Your task to perform on an android device: Open Amazon Image 0: 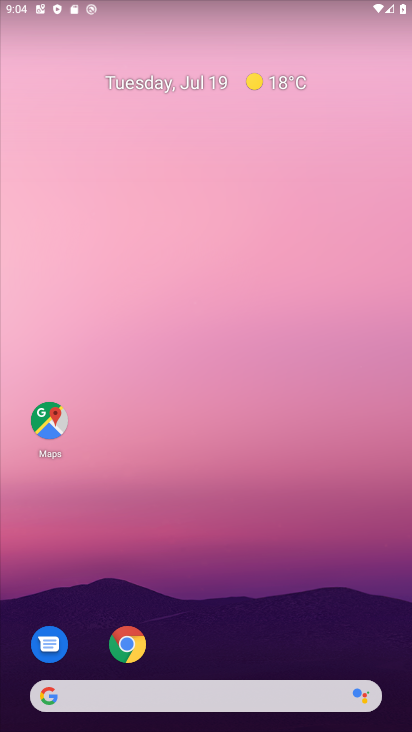
Step 0: drag from (217, 714) to (232, 178)
Your task to perform on an android device: Open Amazon Image 1: 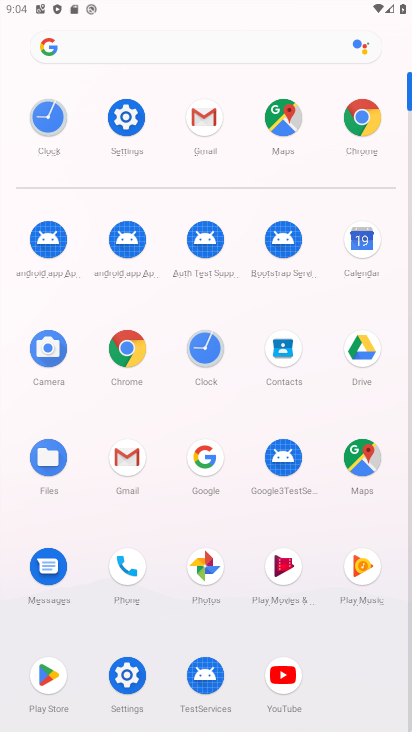
Step 1: click (363, 121)
Your task to perform on an android device: Open Amazon Image 2: 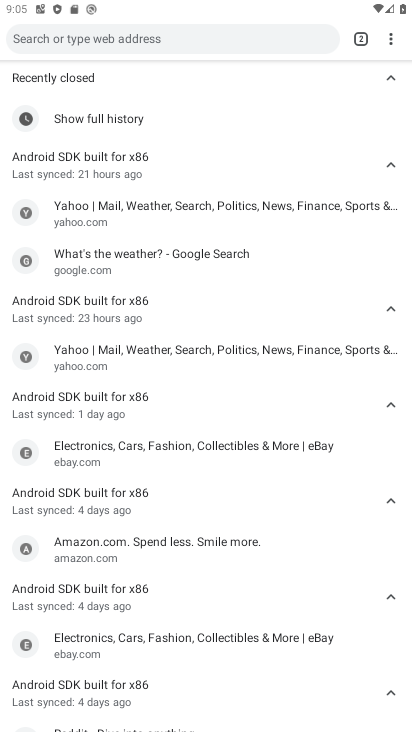
Step 2: click (391, 41)
Your task to perform on an android device: Open Amazon Image 3: 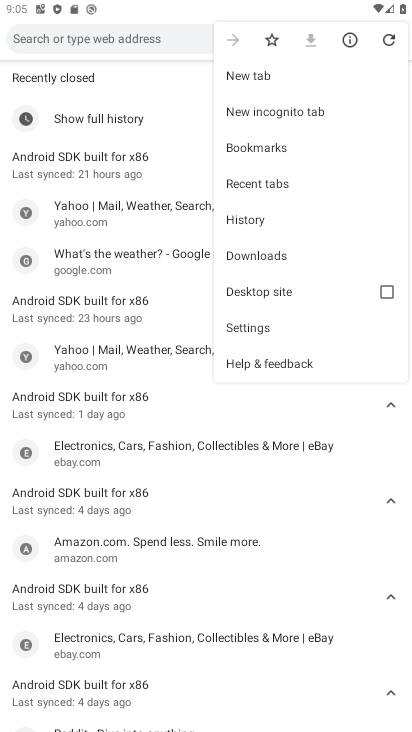
Step 3: click (247, 78)
Your task to perform on an android device: Open Amazon Image 4: 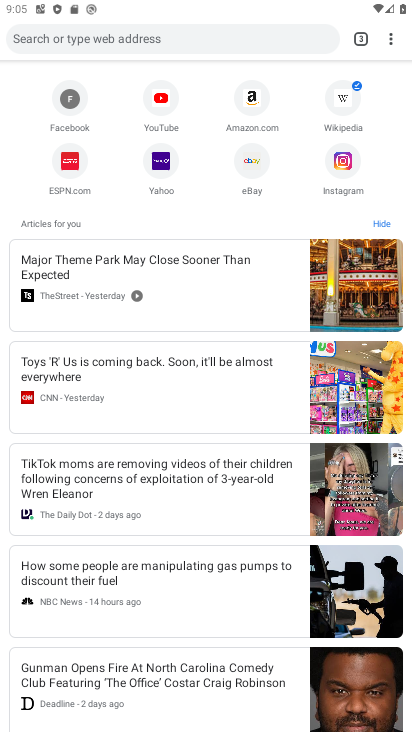
Step 4: click (243, 96)
Your task to perform on an android device: Open Amazon Image 5: 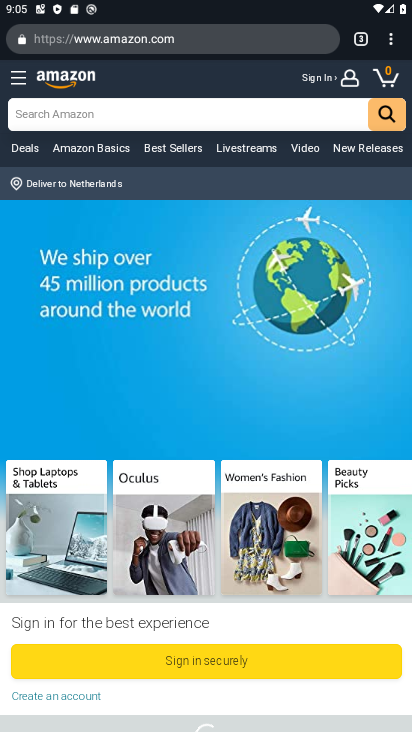
Step 5: task complete